Your task to perform on an android device: Go to Android settings Image 0: 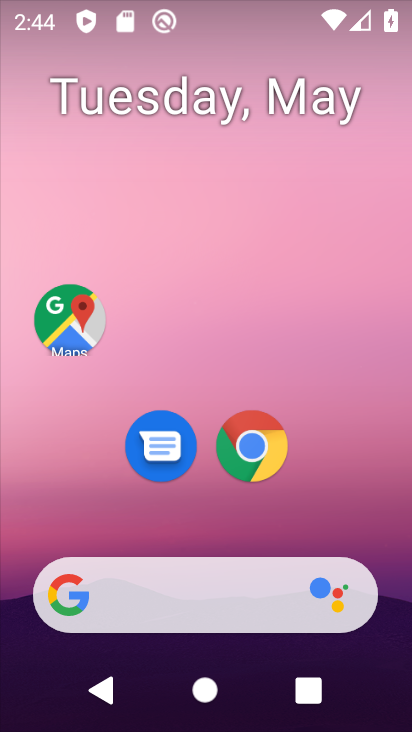
Step 0: drag from (336, 527) to (265, 164)
Your task to perform on an android device: Go to Android settings Image 1: 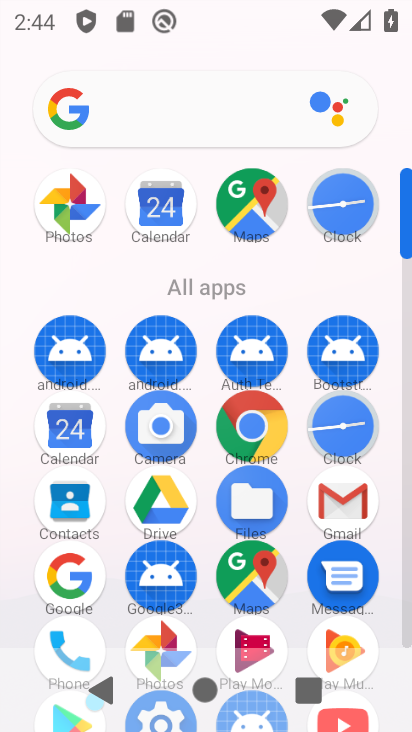
Step 1: drag from (176, 283) to (152, 0)
Your task to perform on an android device: Go to Android settings Image 2: 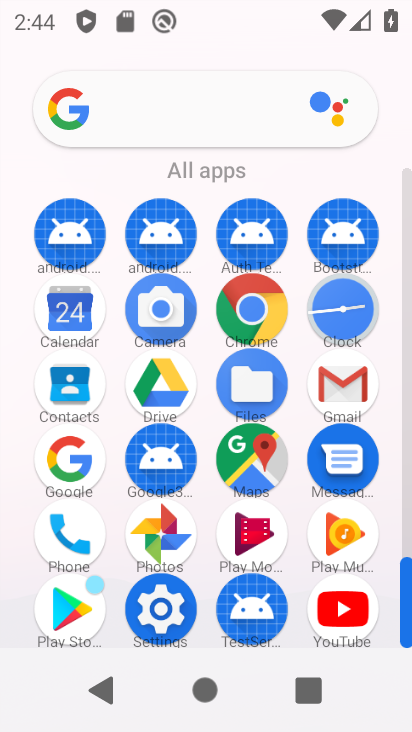
Step 2: click (160, 601)
Your task to perform on an android device: Go to Android settings Image 3: 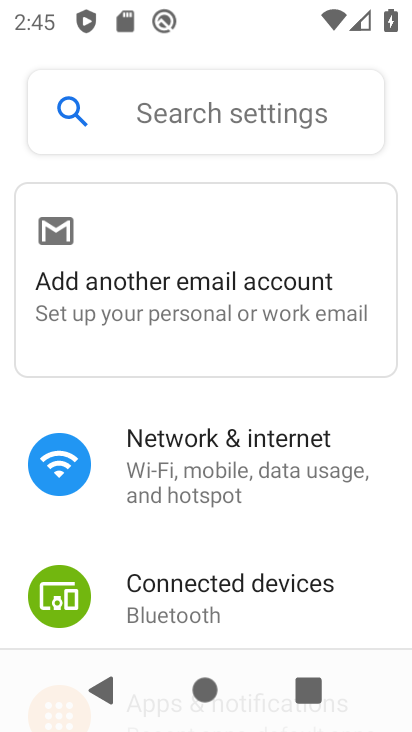
Step 3: task complete